Your task to perform on an android device: Go to Yahoo.com Image 0: 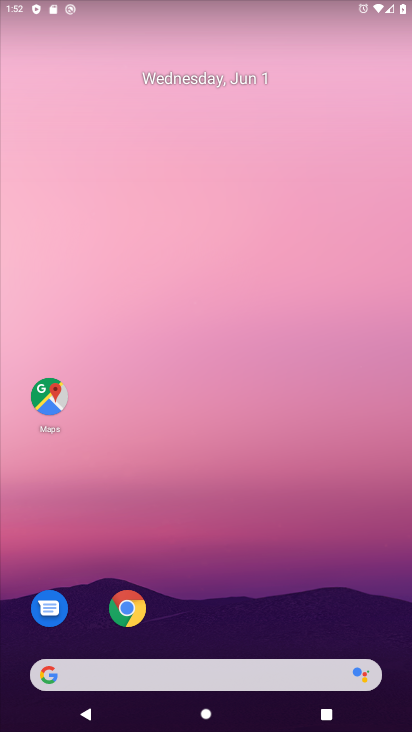
Step 0: click (145, 634)
Your task to perform on an android device: Go to Yahoo.com Image 1: 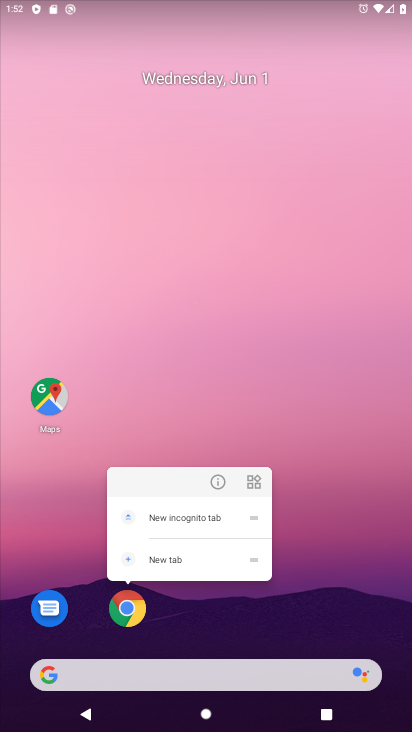
Step 1: click (135, 623)
Your task to perform on an android device: Go to Yahoo.com Image 2: 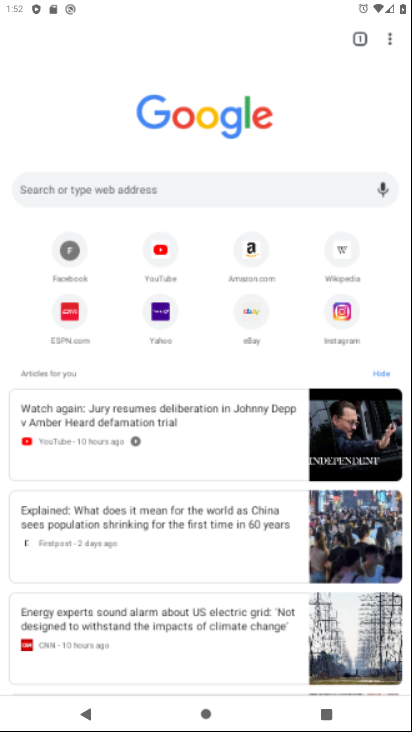
Step 2: click (164, 308)
Your task to perform on an android device: Go to Yahoo.com Image 3: 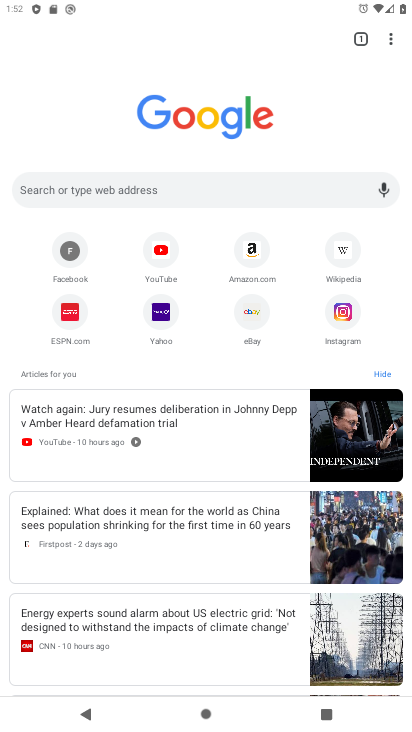
Step 3: click (163, 329)
Your task to perform on an android device: Go to Yahoo.com Image 4: 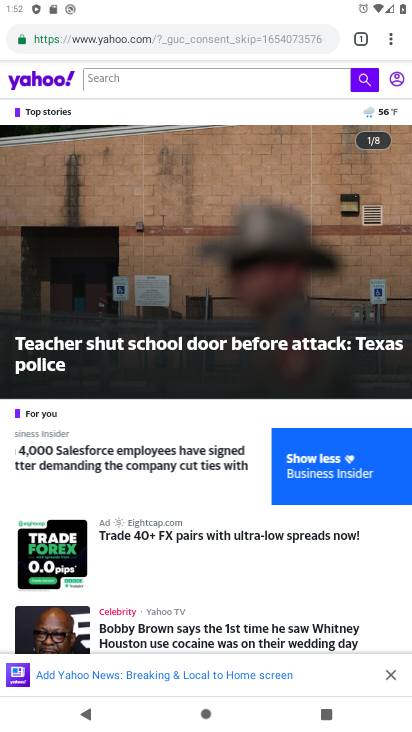
Step 4: task complete